Your task to perform on an android device: View the shopping cart on costco. Add "razer kraken" to the cart on costco Image 0: 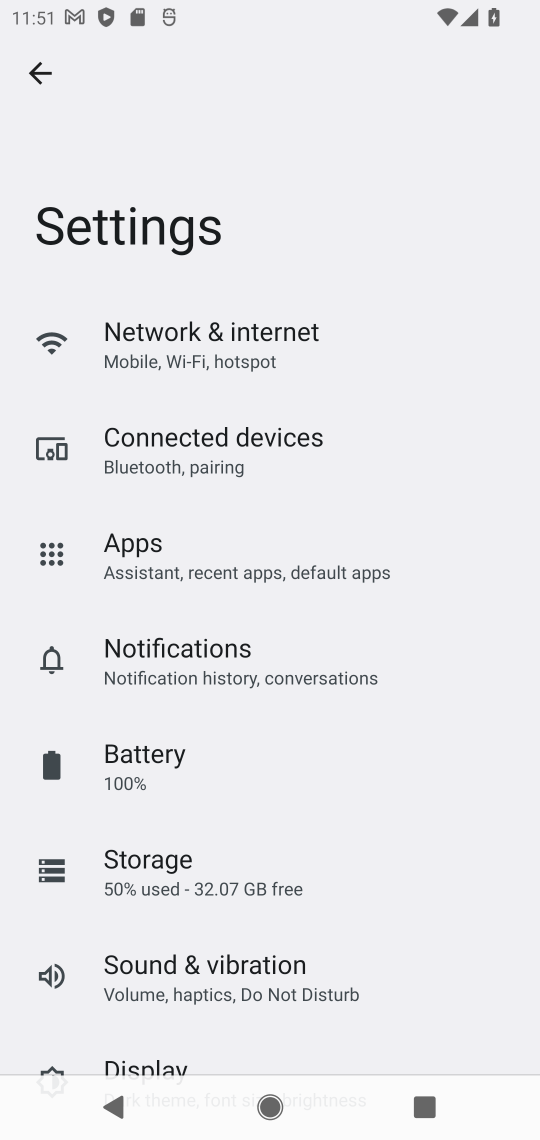
Step 0: press home button
Your task to perform on an android device: View the shopping cart on costco. Add "razer kraken" to the cart on costco Image 1: 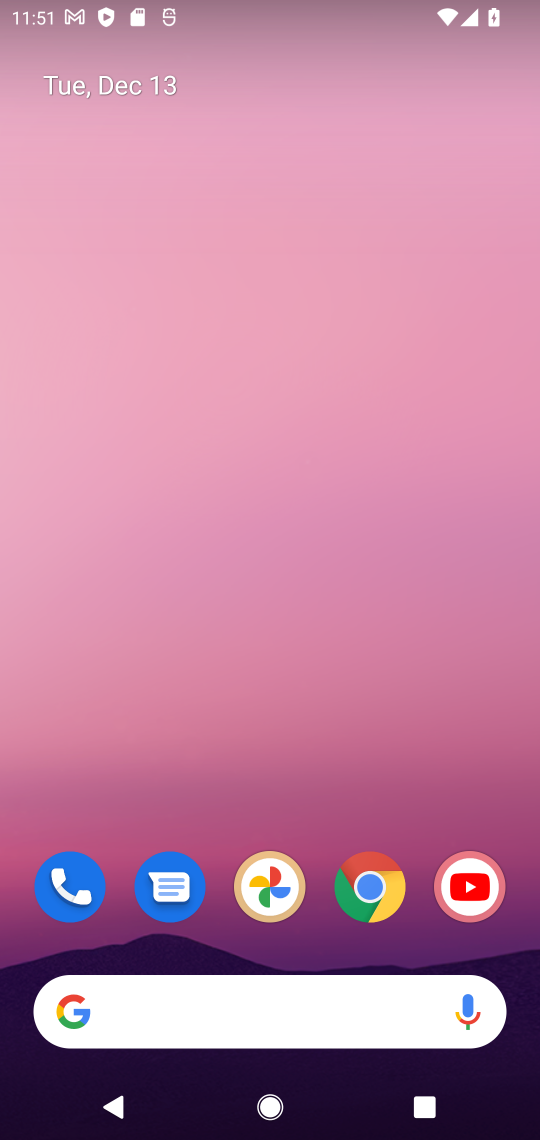
Step 1: drag from (257, 758) to (261, 522)
Your task to perform on an android device: View the shopping cart on costco. Add "razer kraken" to the cart on costco Image 2: 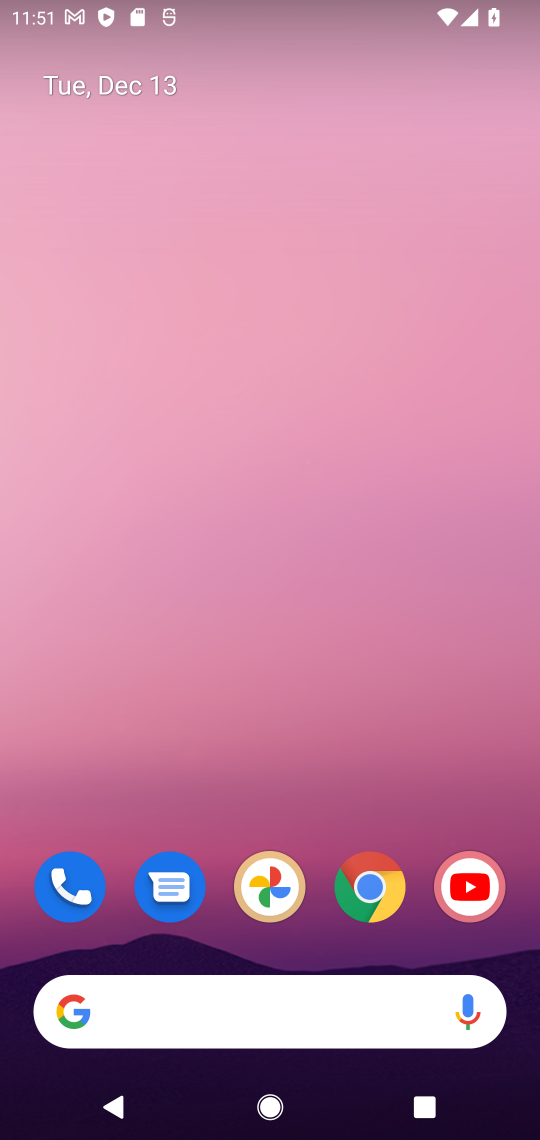
Step 2: drag from (302, 976) to (306, 475)
Your task to perform on an android device: View the shopping cart on costco. Add "razer kraken" to the cart on costco Image 3: 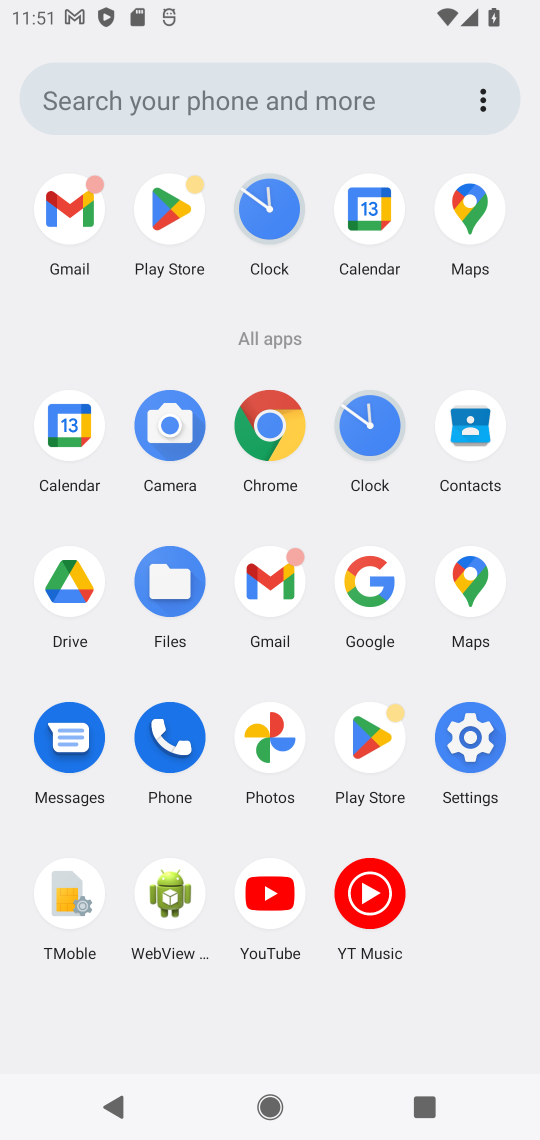
Step 3: click (365, 589)
Your task to perform on an android device: View the shopping cart on costco. Add "razer kraken" to the cart on costco Image 4: 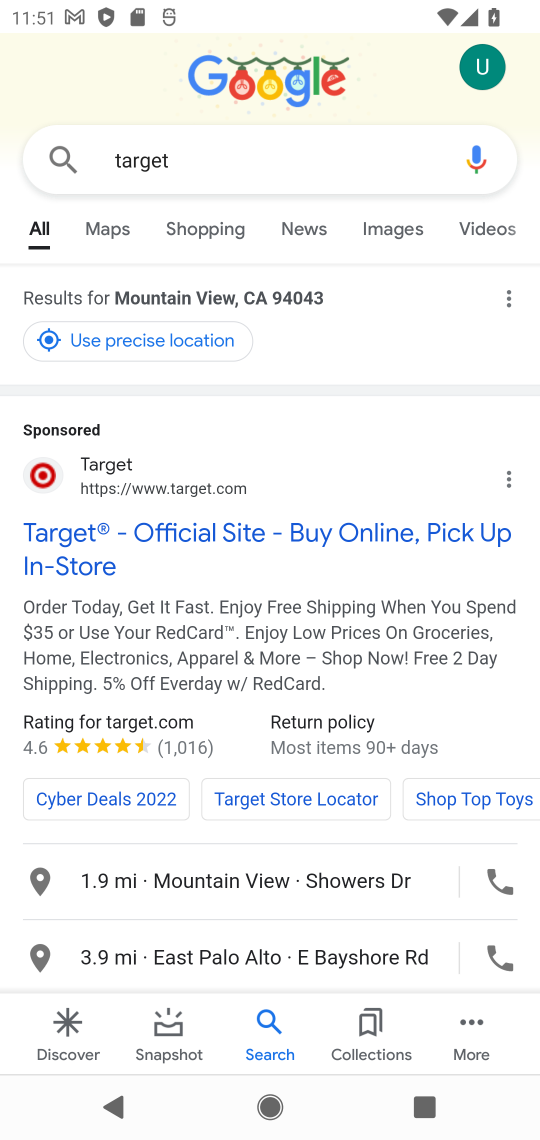
Step 4: click (150, 161)
Your task to perform on an android device: View the shopping cart on costco. Add "razer kraken" to the cart on costco Image 5: 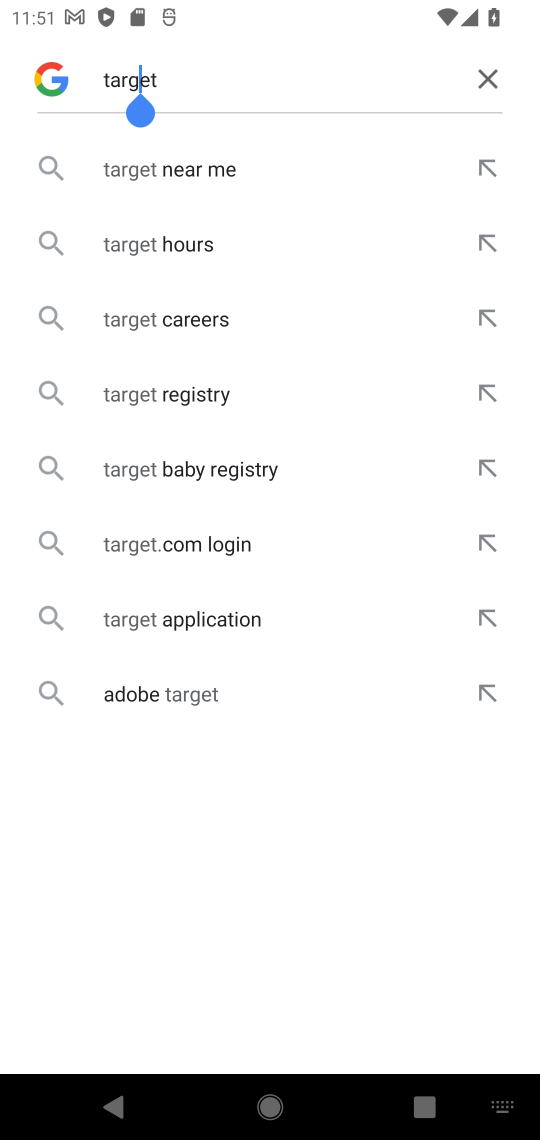
Step 5: click (494, 80)
Your task to perform on an android device: View the shopping cart on costco. Add "razer kraken" to the cart on costco Image 6: 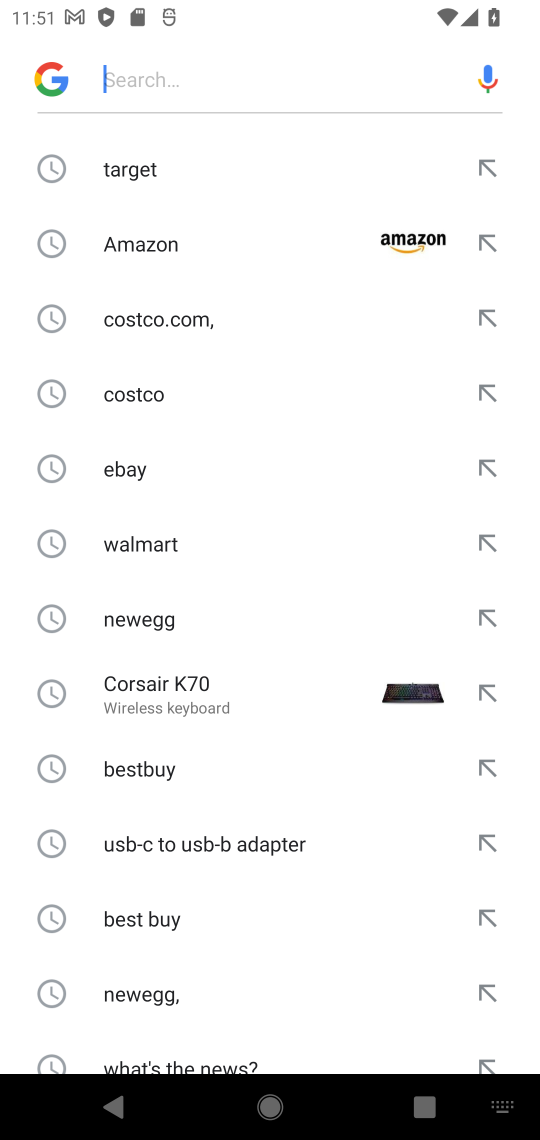
Step 6: click (162, 324)
Your task to perform on an android device: View the shopping cart on costco. Add "razer kraken" to the cart on costco Image 7: 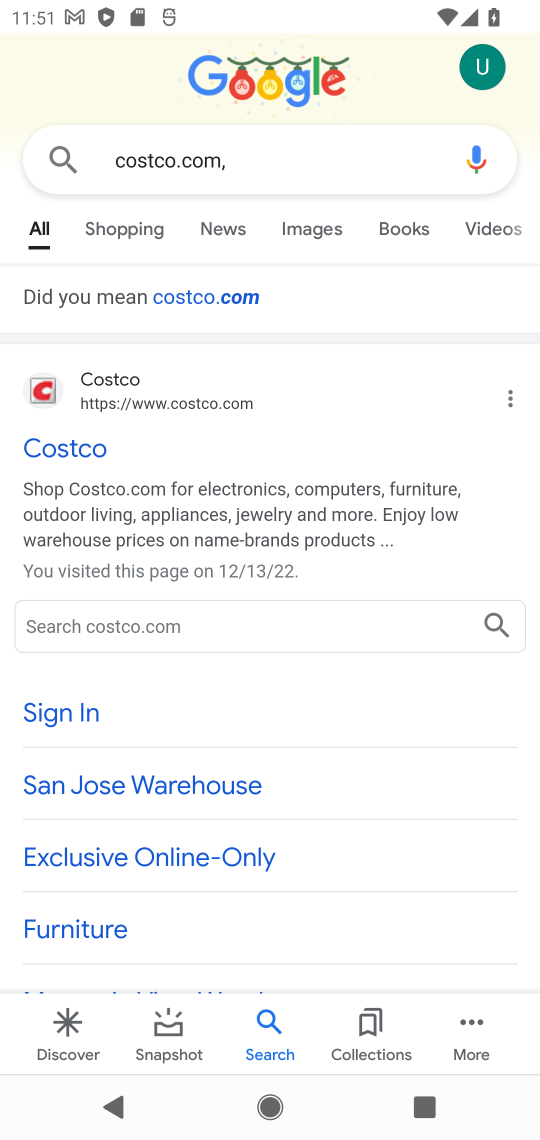
Step 7: click (63, 439)
Your task to perform on an android device: View the shopping cart on costco. Add "razer kraken" to the cart on costco Image 8: 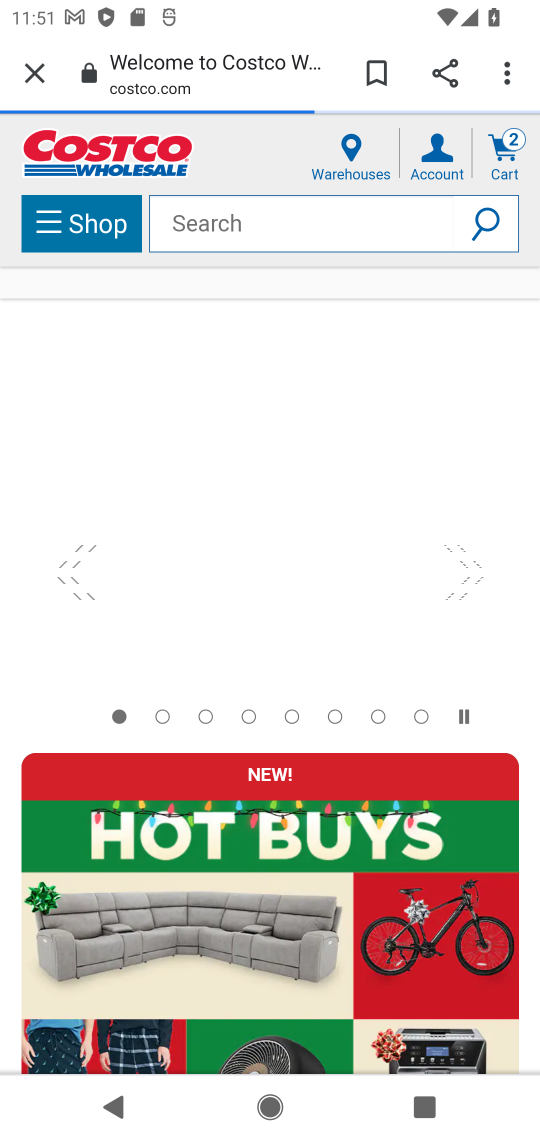
Step 8: click (506, 149)
Your task to perform on an android device: View the shopping cart on costco. Add "razer kraken" to the cart on costco Image 9: 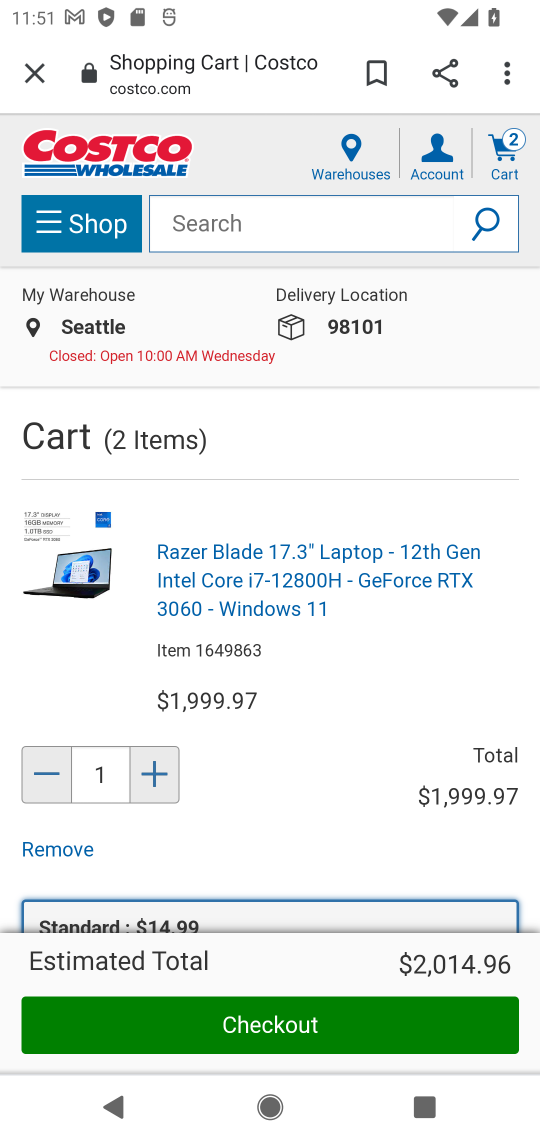
Step 9: click (210, 220)
Your task to perform on an android device: View the shopping cart on costco. Add "razer kraken" to the cart on costco Image 10: 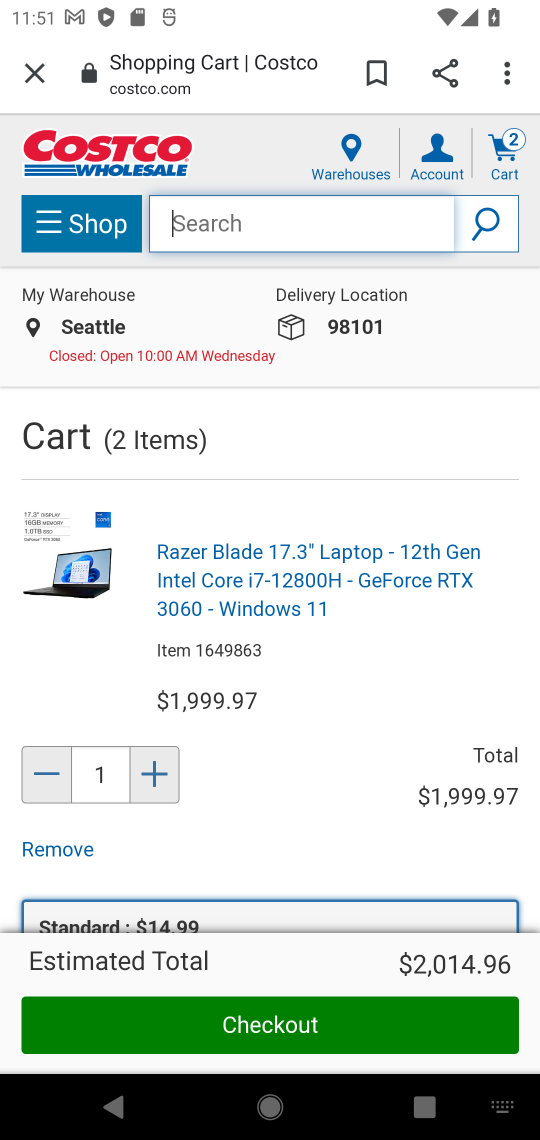
Step 10: type "razer kraken"
Your task to perform on an android device: View the shopping cart on costco. Add "razer kraken" to the cart on costco Image 11: 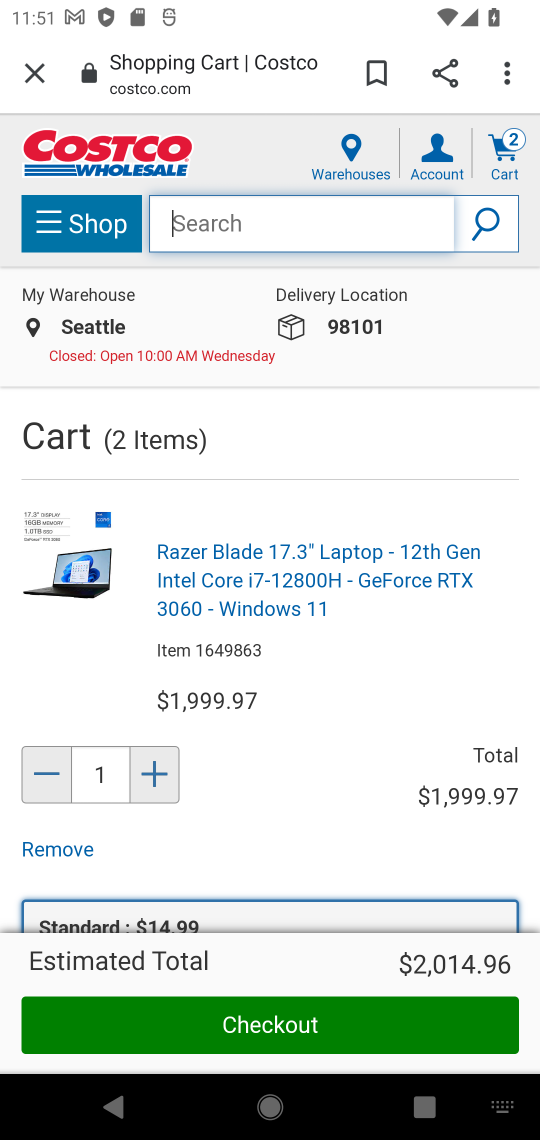
Step 11: click (478, 226)
Your task to perform on an android device: View the shopping cart on costco. Add "razer kraken" to the cart on costco Image 12: 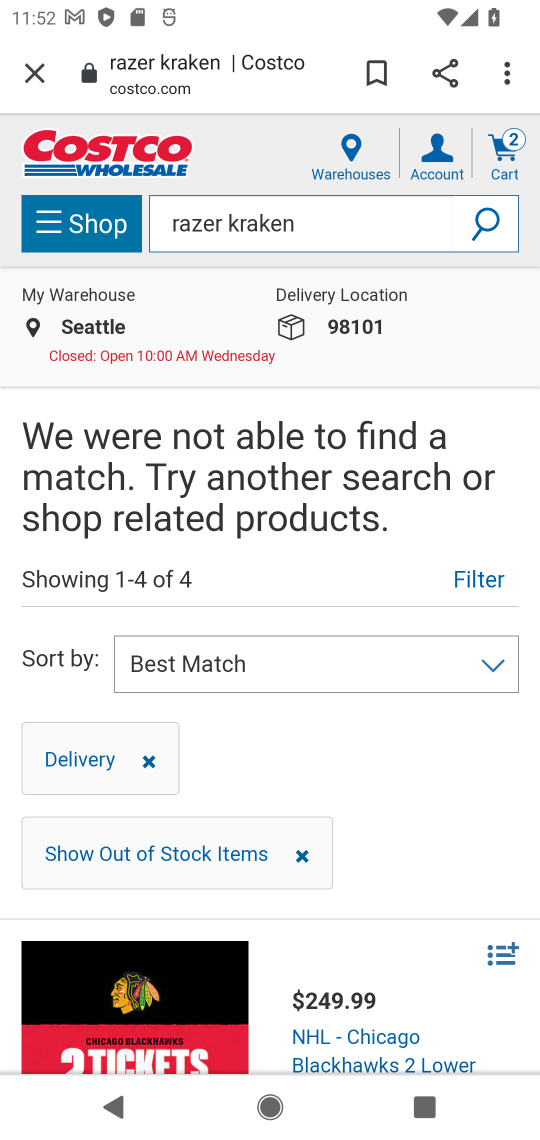
Step 12: drag from (378, 933) to (383, 598)
Your task to perform on an android device: View the shopping cart on costco. Add "razer kraken" to the cart on costco Image 13: 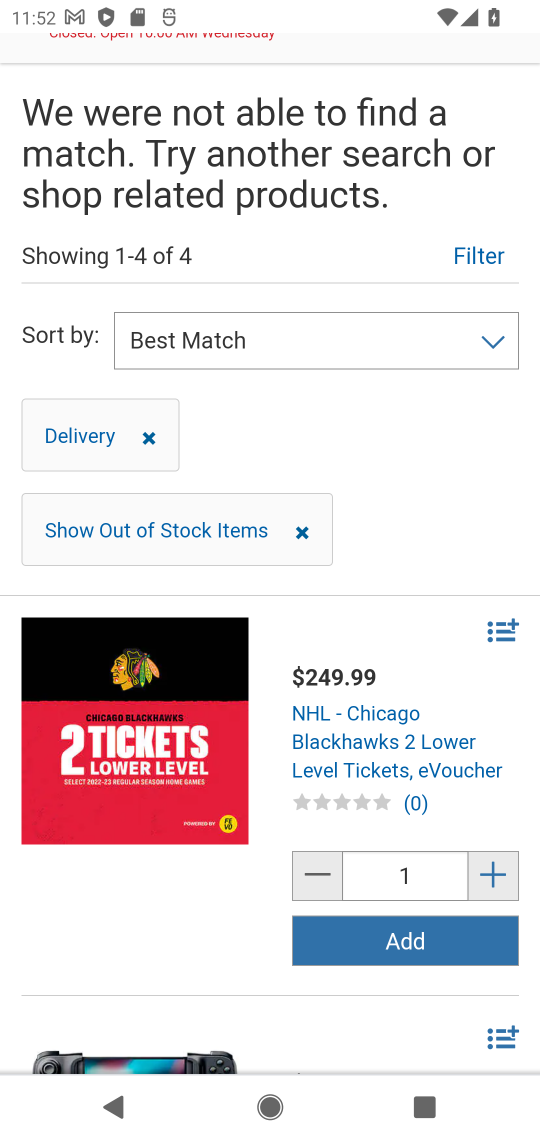
Step 13: click (408, 947)
Your task to perform on an android device: View the shopping cart on costco. Add "razer kraken" to the cart on costco Image 14: 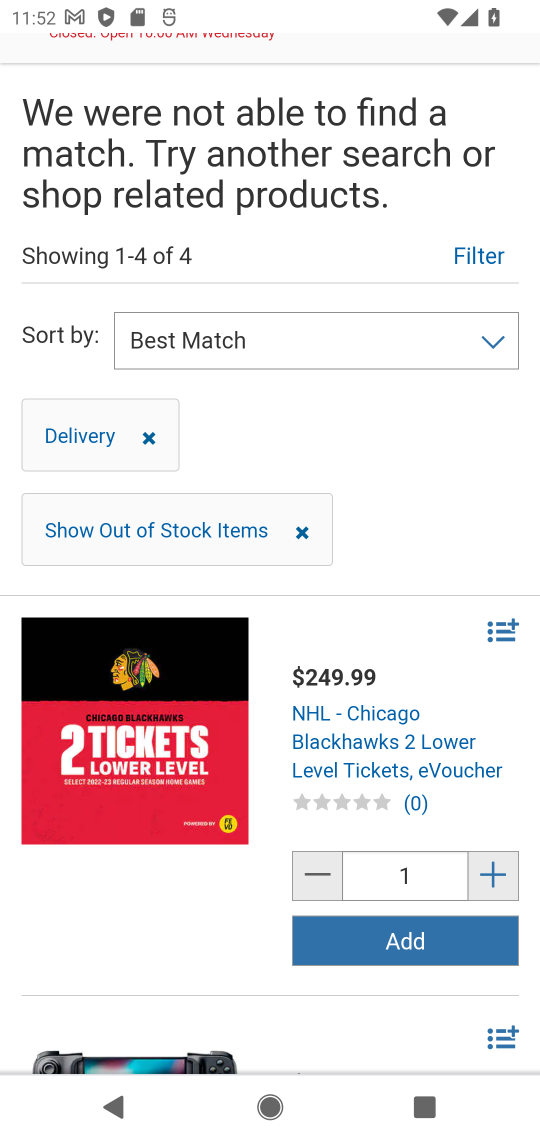
Step 14: click (408, 947)
Your task to perform on an android device: View the shopping cart on costco. Add "razer kraken" to the cart on costco Image 15: 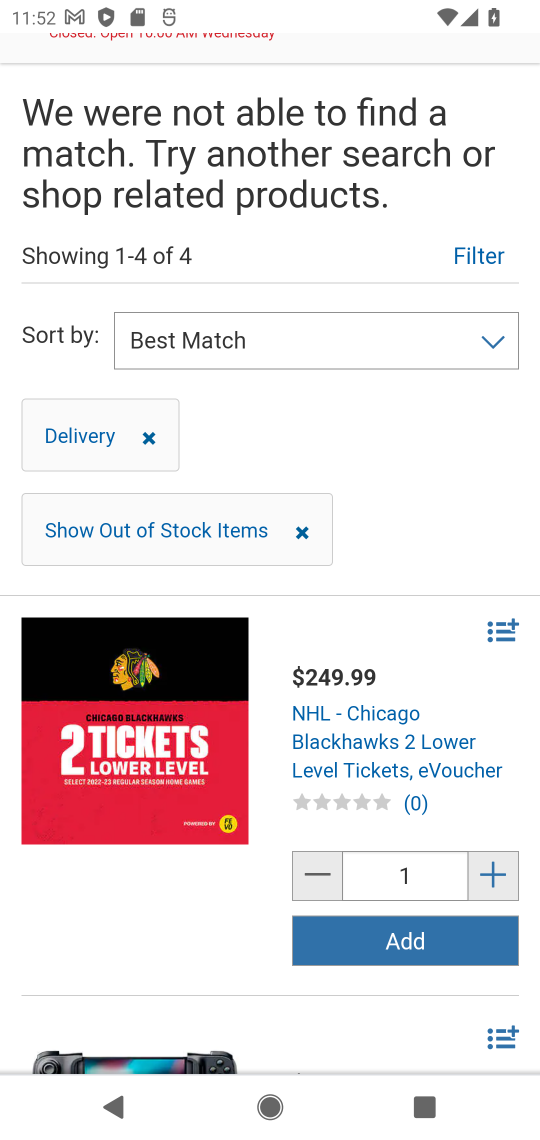
Step 15: click (370, 945)
Your task to perform on an android device: View the shopping cart on costco. Add "razer kraken" to the cart on costco Image 16: 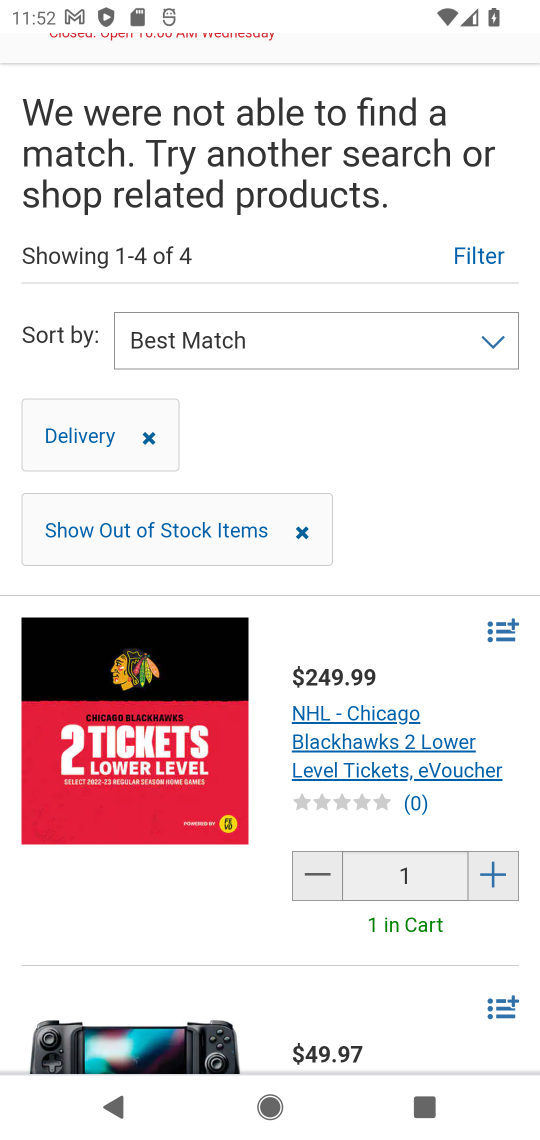
Step 16: drag from (376, 203) to (470, 791)
Your task to perform on an android device: View the shopping cart on costco. Add "razer kraken" to the cart on costco Image 17: 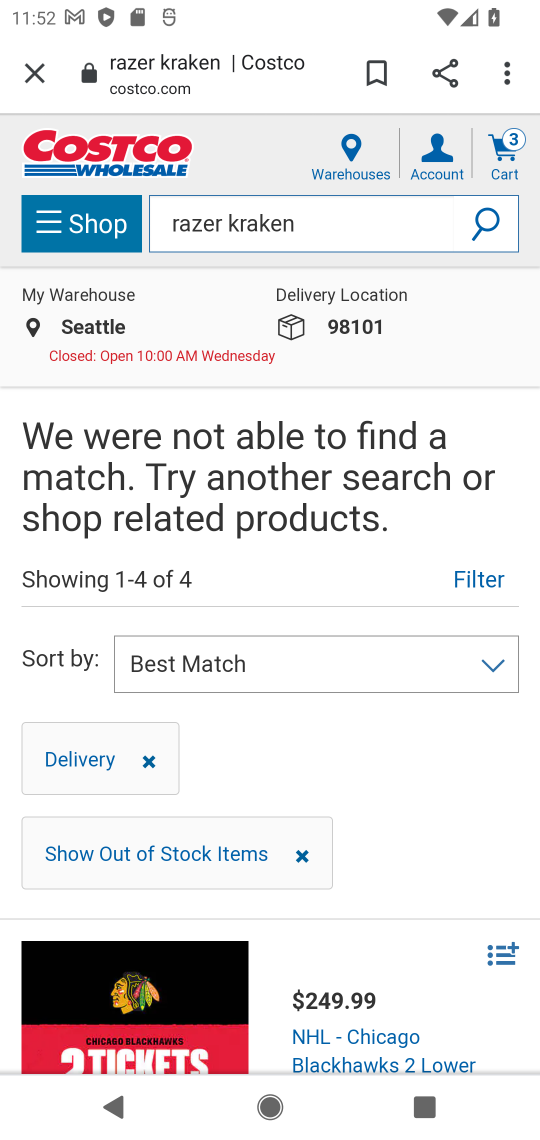
Step 17: click (512, 145)
Your task to perform on an android device: View the shopping cart on costco. Add "razer kraken" to the cart on costco Image 18: 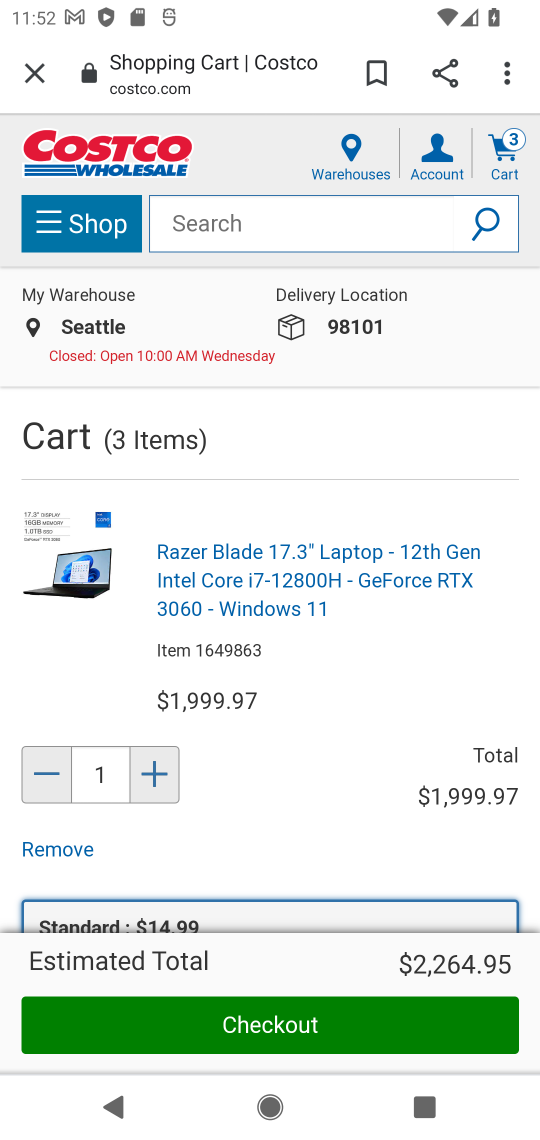
Step 18: click (315, 1026)
Your task to perform on an android device: View the shopping cart on costco. Add "razer kraken" to the cart on costco Image 19: 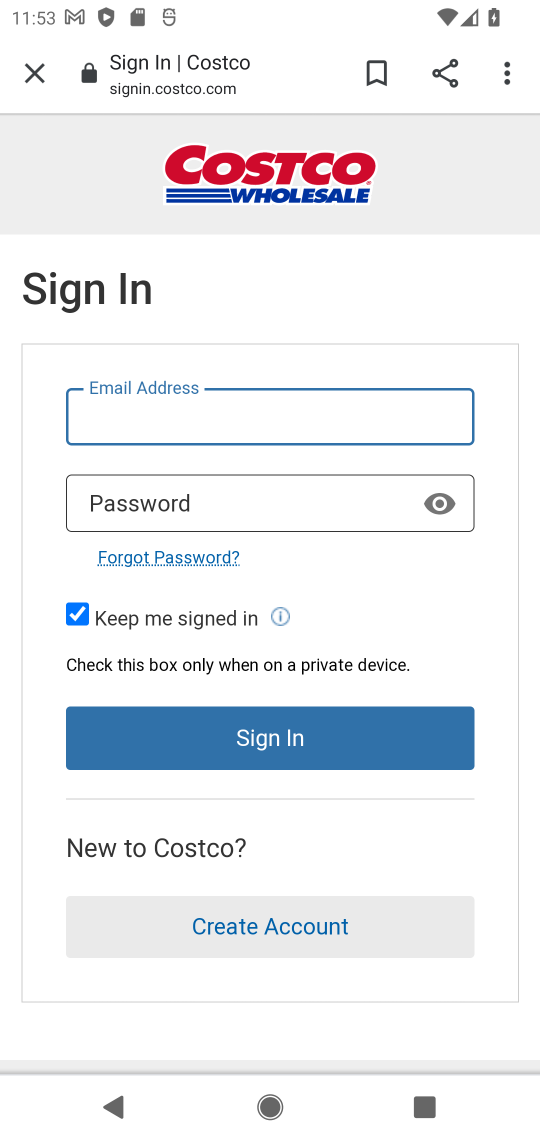
Step 19: task complete